Your task to perform on an android device: visit the assistant section in the google photos Image 0: 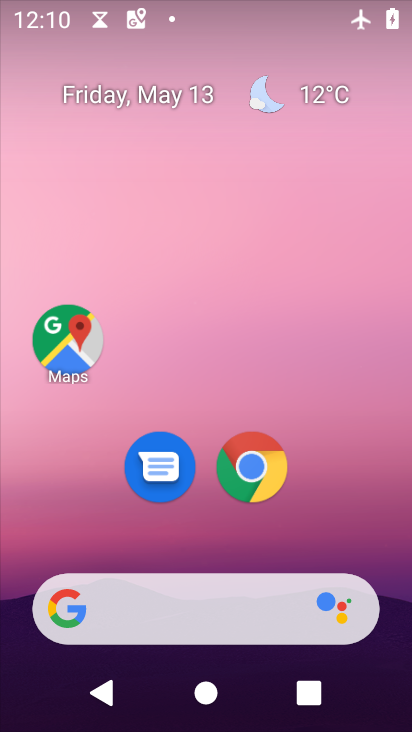
Step 0: drag from (338, 531) to (277, 35)
Your task to perform on an android device: visit the assistant section in the google photos Image 1: 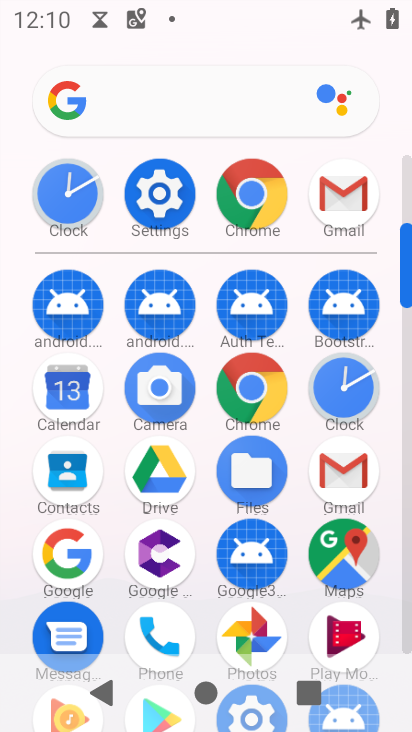
Step 1: click (250, 621)
Your task to perform on an android device: visit the assistant section in the google photos Image 2: 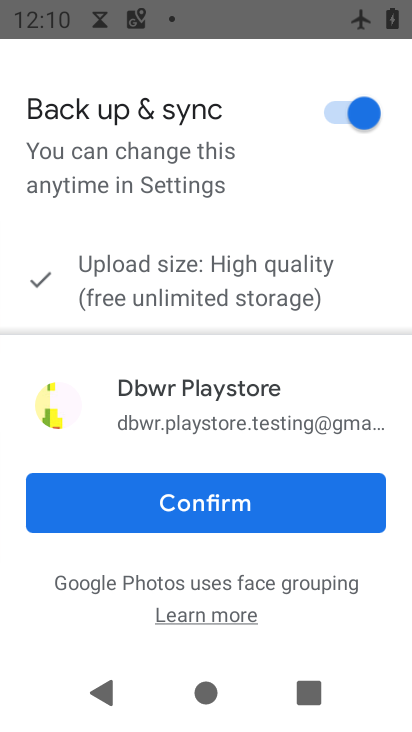
Step 2: click (221, 509)
Your task to perform on an android device: visit the assistant section in the google photos Image 3: 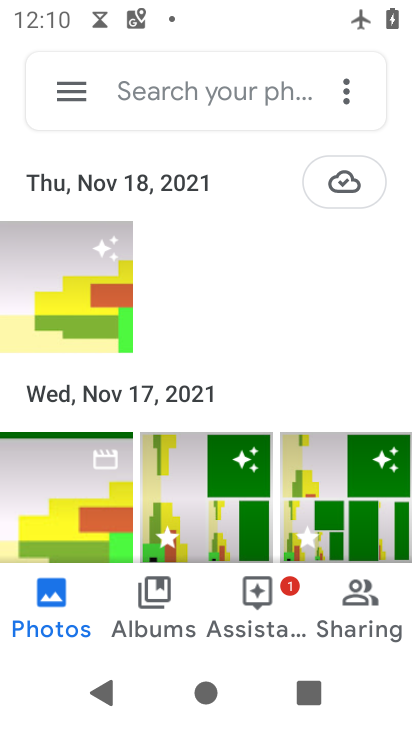
Step 3: click (253, 609)
Your task to perform on an android device: visit the assistant section in the google photos Image 4: 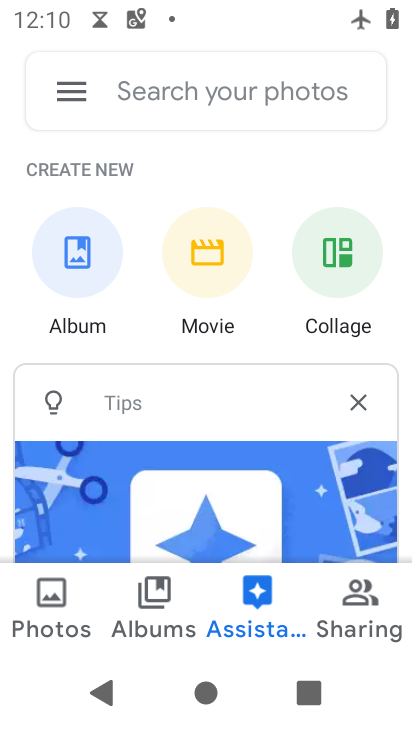
Step 4: task complete